Your task to perform on an android device: visit the assistant section in the google photos Image 0: 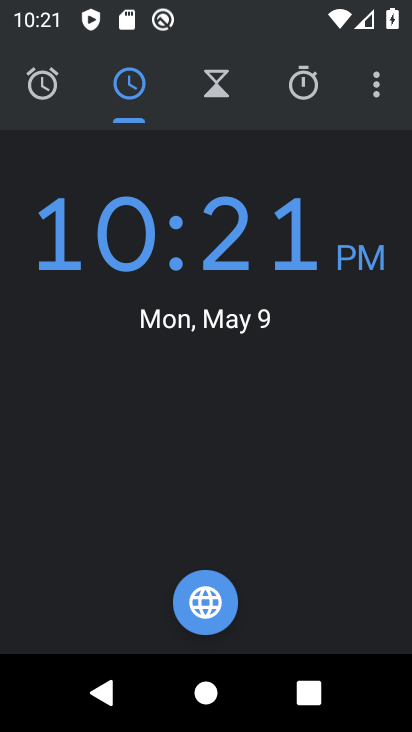
Step 0: press home button
Your task to perform on an android device: visit the assistant section in the google photos Image 1: 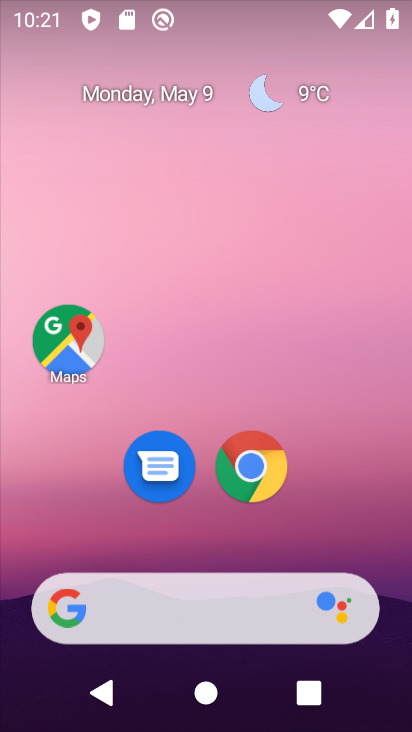
Step 1: drag from (365, 455) to (336, 7)
Your task to perform on an android device: visit the assistant section in the google photos Image 2: 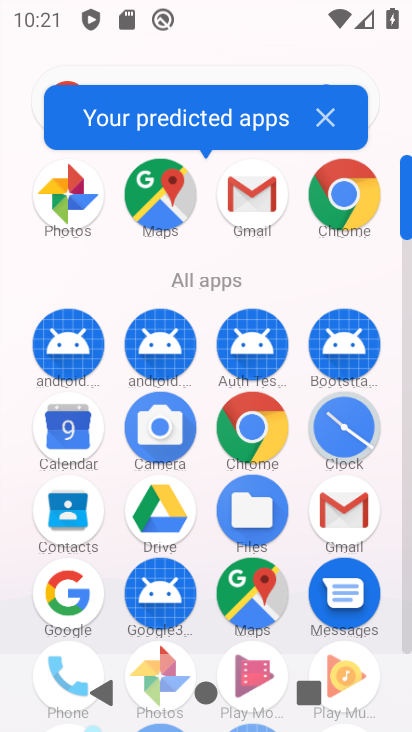
Step 2: drag from (197, 291) to (171, 92)
Your task to perform on an android device: visit the assistant section in the google photos Image 3: 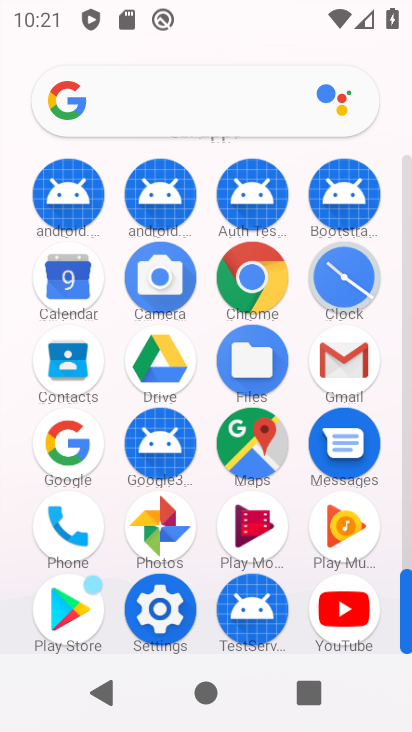
Step 3: click (175, 513)
Your task to perform on an android device: visit the assistant section in the google photos Image 4: 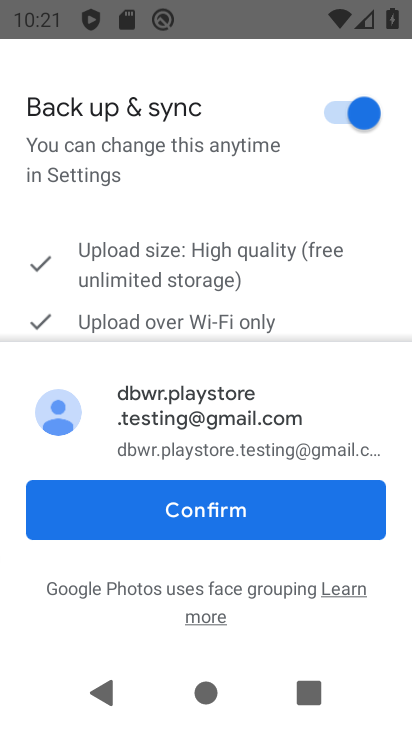
Step 4: click (257, 519)
Your task to perform on an android device: visit the assistant section in the google photos Image 5: 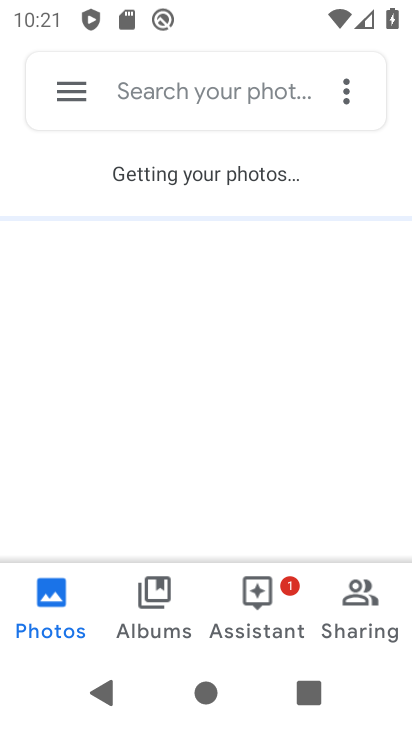
Step 5: click (258, 581)
Your task to perform on an android device: visit the assistant section in the google photos Image 6: 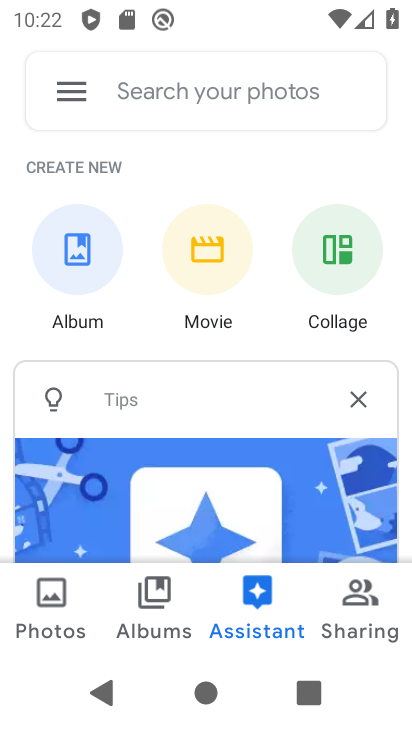
Step 6: task complete